Your task to perform on an android device: When is my next appointment? Image 0: 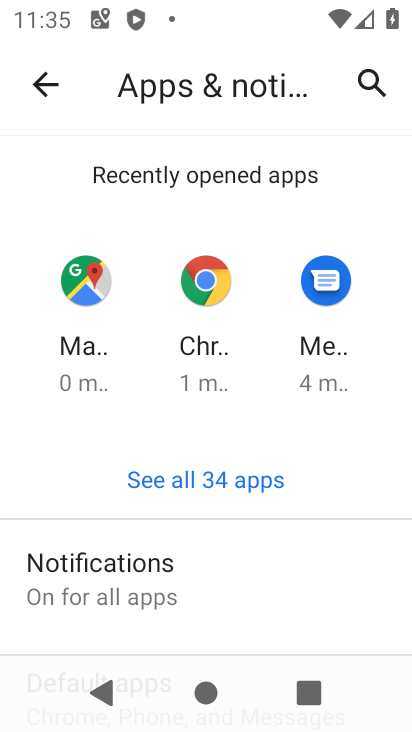
Step 0: press home button
Your task to perform on an android device: When is my next appointment? Image 1: 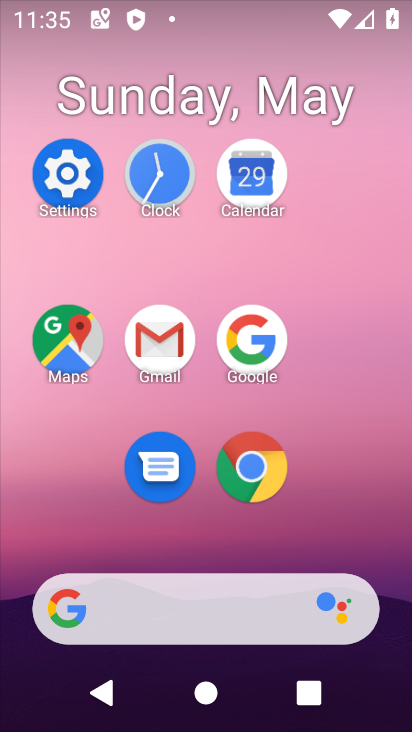
Step 1: click (249, 175)
Your task to perform on an android device: When is my next appointment? Image 2: 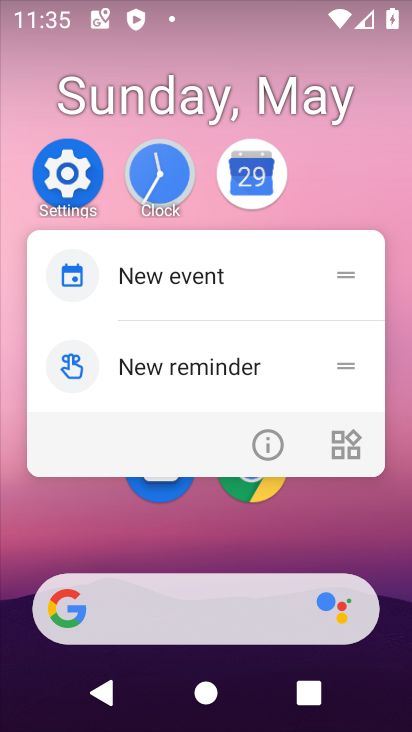
Step 2: click (249, 174)
Your task to perform on an android device: When is my next appointment? Image 3: 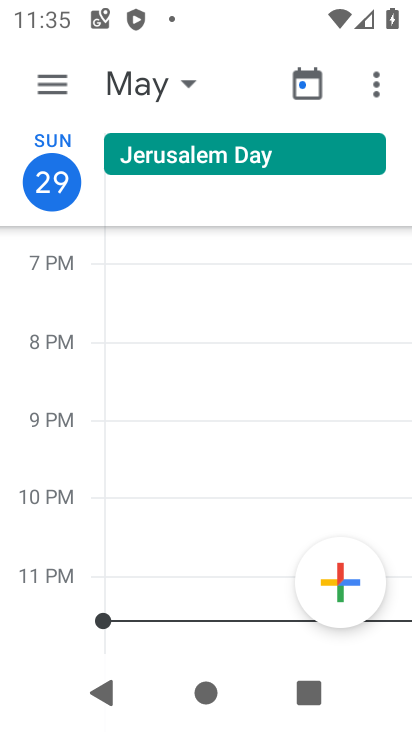
Step 3: click (56, 86)
Your task to perform on an android device: When is my next appointment? Image 4: 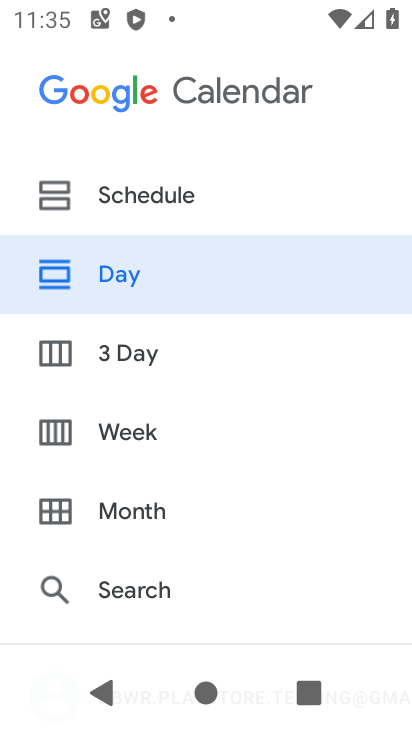
Step 4: click (154, 296)
Your task to perform on an android device: When is my next appointment? Image 5: 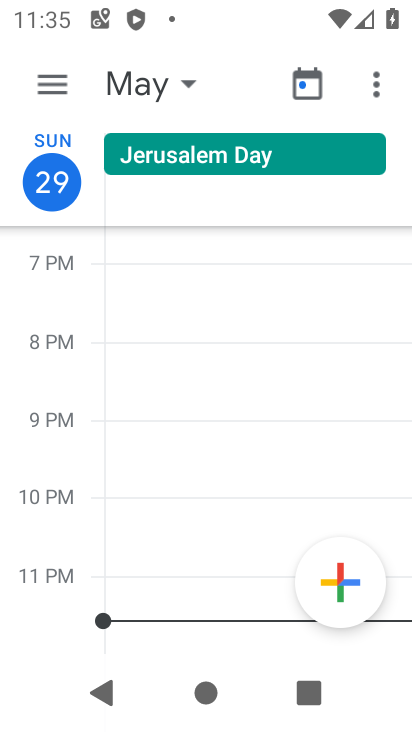
Step 5: task complete